Your task to perform on an android device: clear all cookies in the chrome app Image 0: 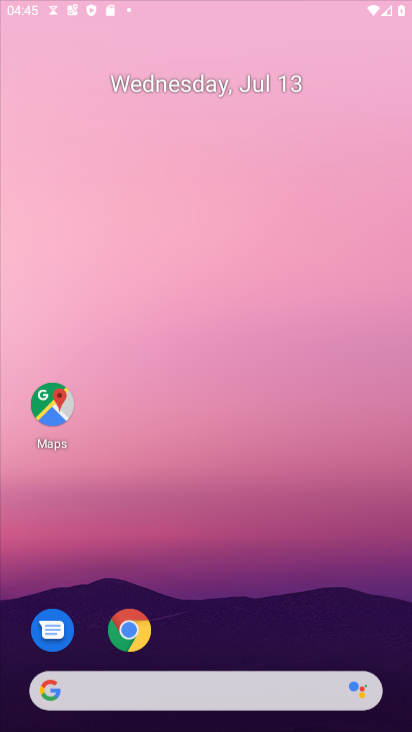
Step 0: press home button
Your task to perform on an android device: clear all cookies in the chrome app Image 1: 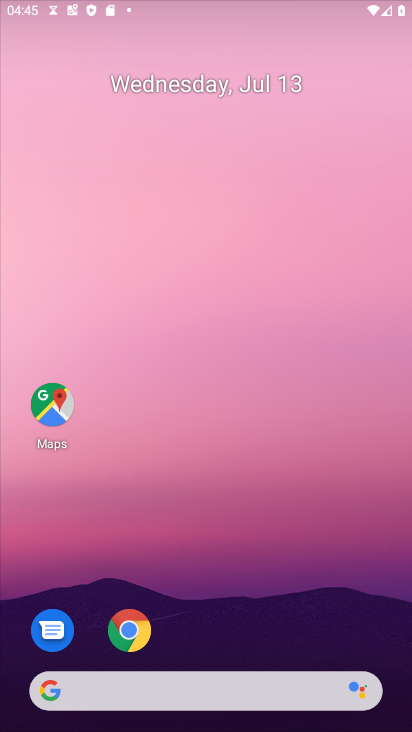
Step 1: drag from (279, 530) to (275, 2)
Your task to perform on an android device: clear all cookies in the chrome app Image 2: 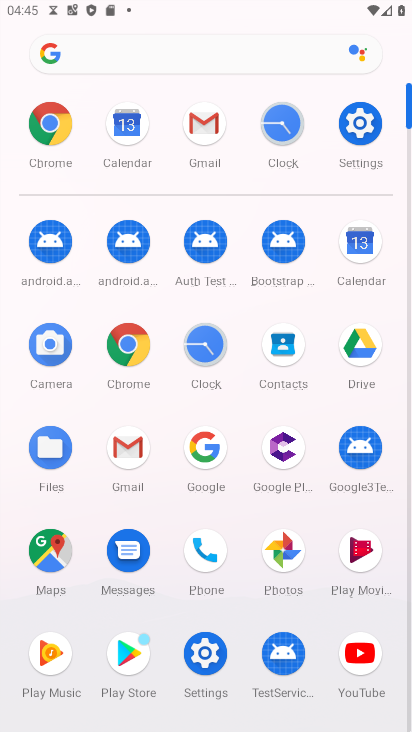
Step 2: click (133, 359)
Your task to perform on an android device: clear all cookies in the chrome app Image 3: 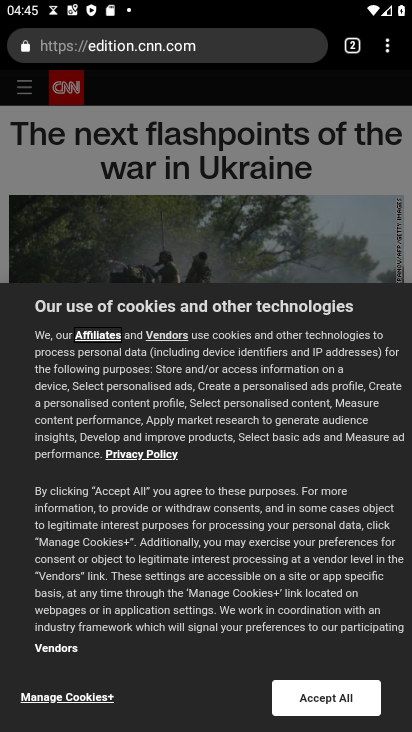
Step 3: drag from (389, 40) to (253, 506)
Your task to perform on an android device: clear all cookies in the chrome app Image 4: 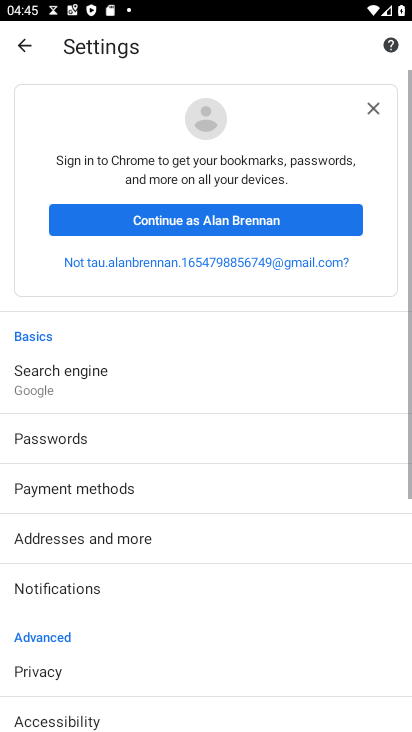
Step 4: drag from (157, 661) to (148, 273)
Your task to perform on an android device: clear all cookies in the chrome app Image 5: 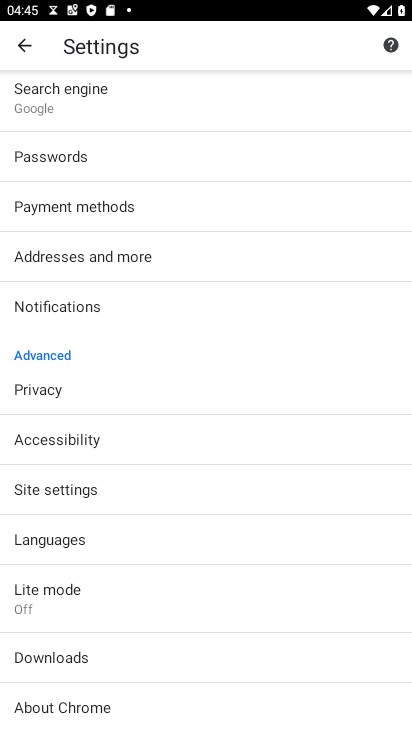
Step 5: click (88, 398)
Your task to perform on an android device: clear all cookies in the chrome app Image 6: 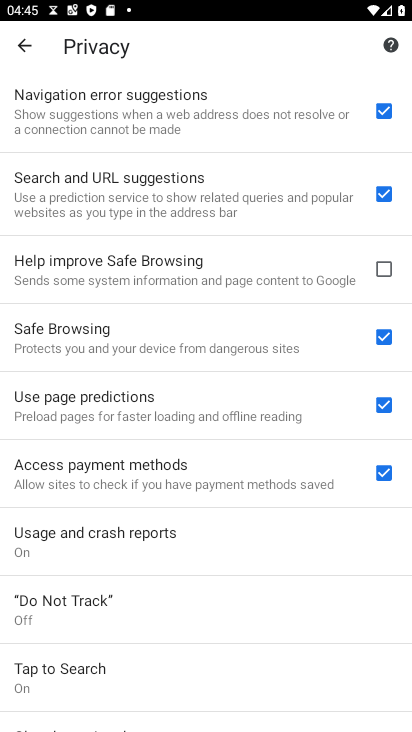
Step 6: drag from (124, 633) to (178, 43)
Your task to perform on an android device: clear all cookies in the chrome app Image 7: 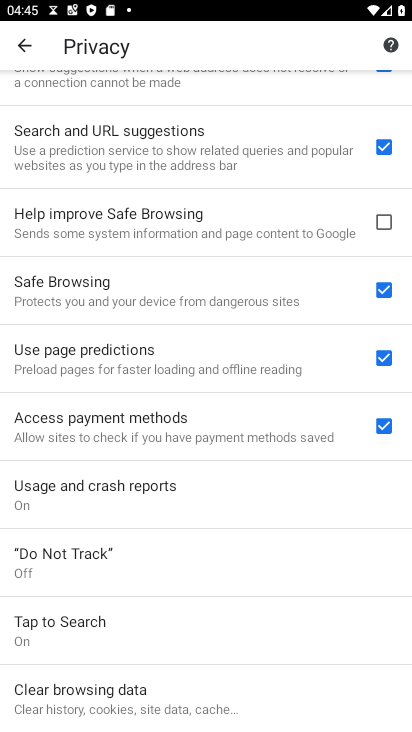
Step 7: click (209, 705)
Your task to perform on an android device: clear all cookies in the chrome app Image 8: 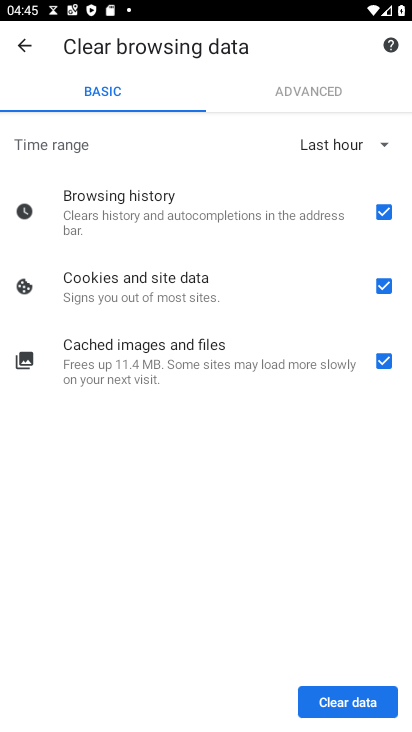
Step 8: click (329, 696)
Your task to perform on an android device: clear all cookies in the chrome app Image 9: 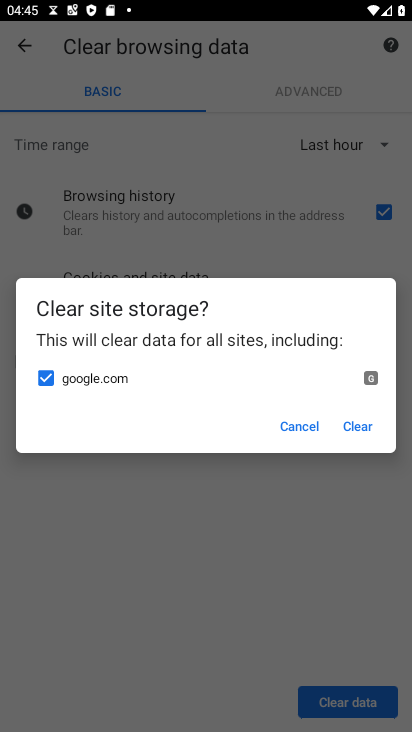
Step 9: click (358, 419)
Your task to perform on an android device: clear all cookies in the chrome app Image 10: 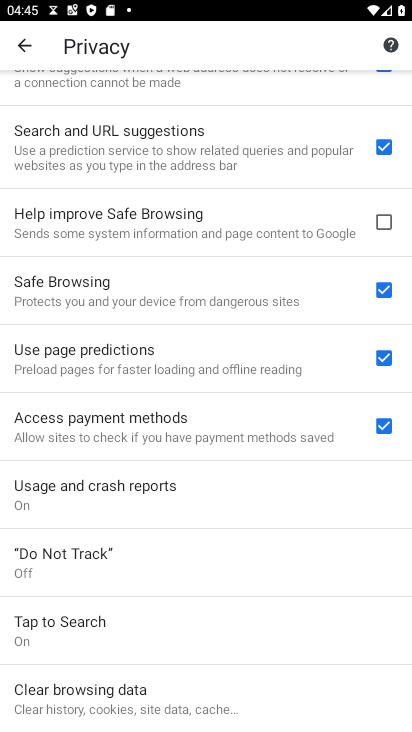
Step 10: task complete